Your task to perform on an android device: check google app version Image 0: 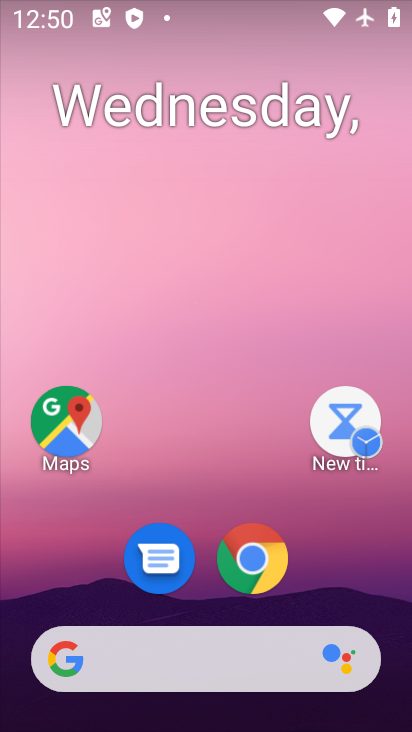
Step 0: drag from (285, 661) to (96, 110)
Your task to perform on an android device: check google app version Image 1: 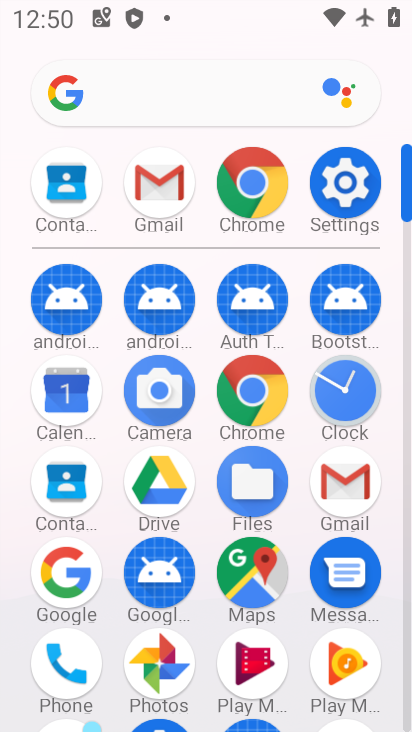
Step 1: drag from (396, 319) to (366, 180)
Your task to perform on an android device: check google app version Image 2: 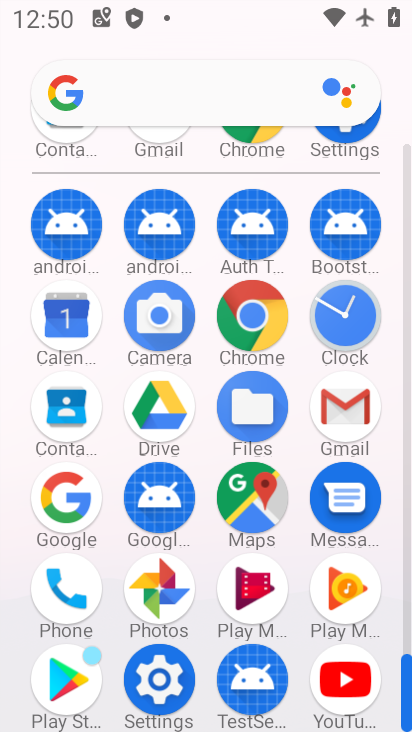
Step 2: click (58, 489)
Your task to perform on an android device: check google app version Image 3: 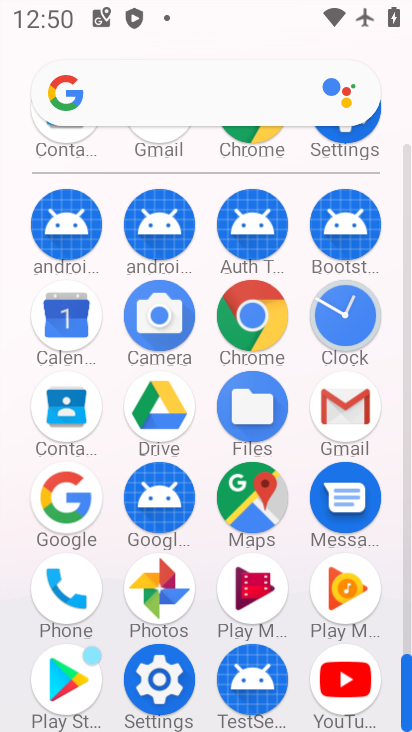
Step 3: click (56, 490)
Your task to perform on an android device: check google app version Image 4: 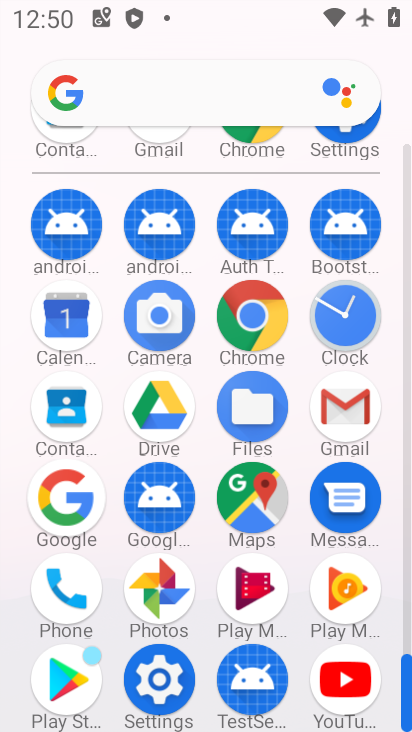
Step 4: click (52, 511)
Your task to perform on an android device: check google app version Image 5: 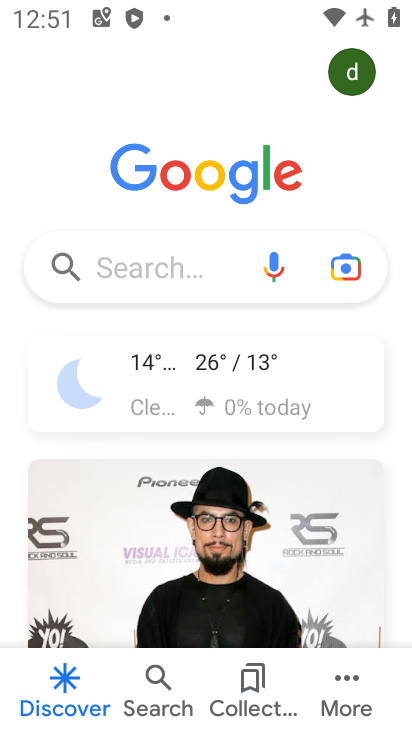
Step 5: click (345, 678)
Your task to perform on an android device: check google app version Image 6: 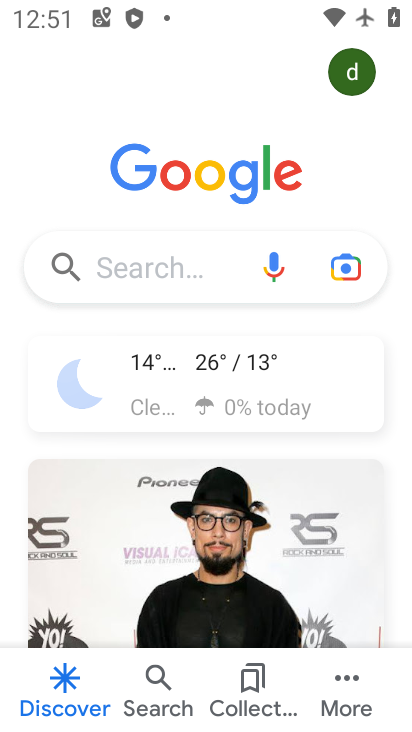
Step 6: click (345, 677)
Your task to perform on an android device: check google app version Image 7: 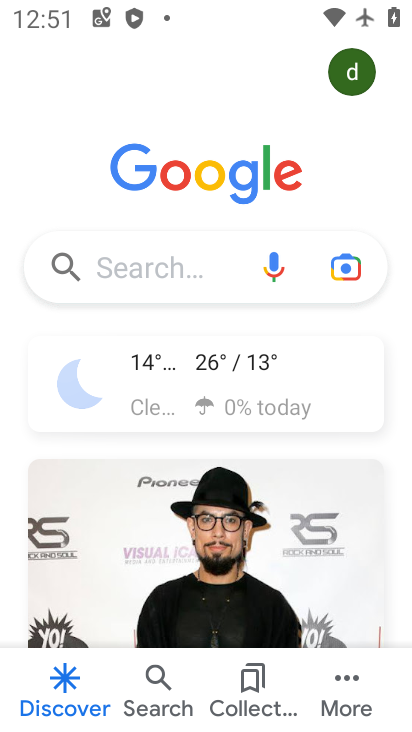
Step 7: click (351, 688)
Your task to perform on an android device: check google app version Image 8: 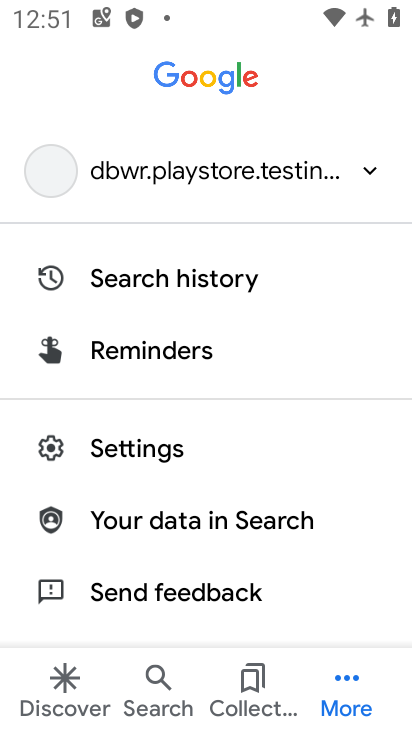
Step 8: click (350, 695)
Your task to perform on an android device: check google app version Image 9: 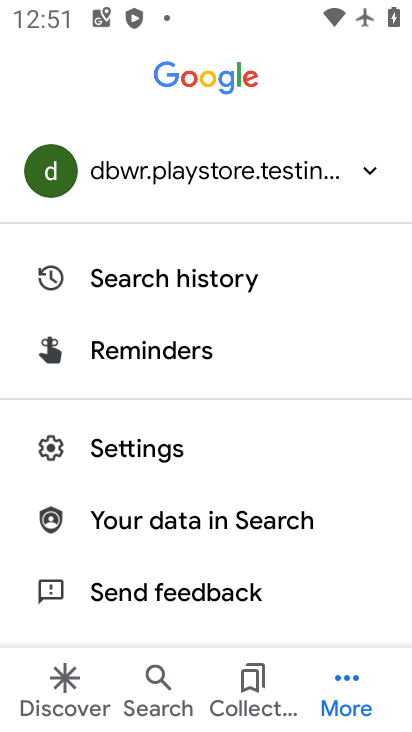
Step 9: click (352, 678)
Your task to perform on an android device: check google app version Image 10: 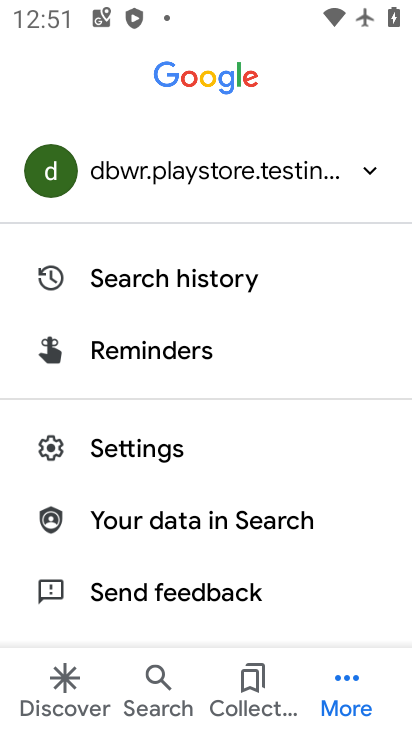
Step 10: click (351, 676)
Your task to perform on an android device: check google app version Image 11: 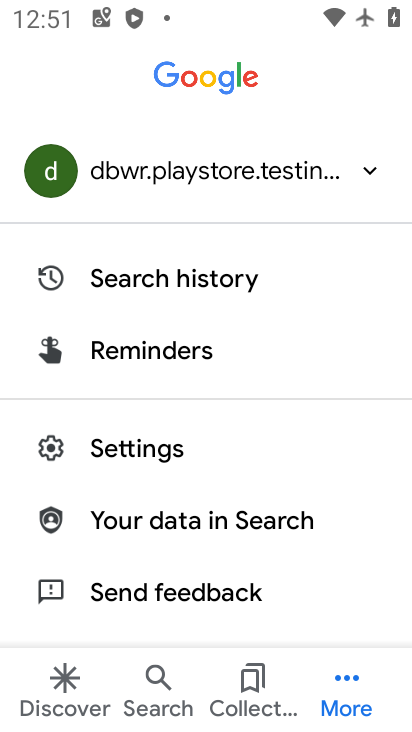
Step 11: click (351, 687)
Your task to perform on an android device: check google app version Image 12: 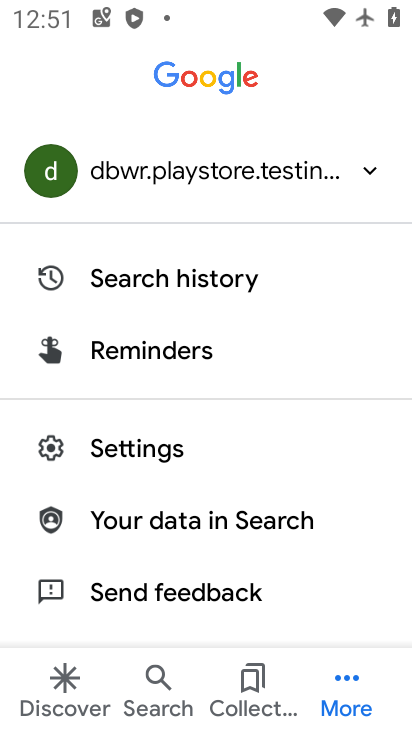
Step 12: click (123, 436)
Your task to perform on an android device: check google app version Image 13: 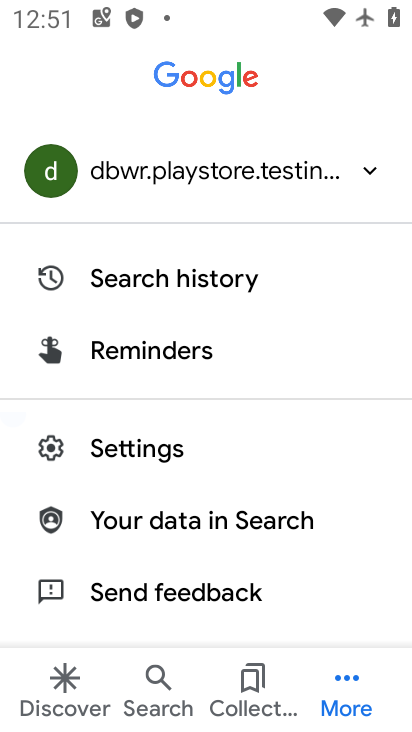
Step 13: click (126, 441)
Your task to perform on an android device: check google app version Image 14: 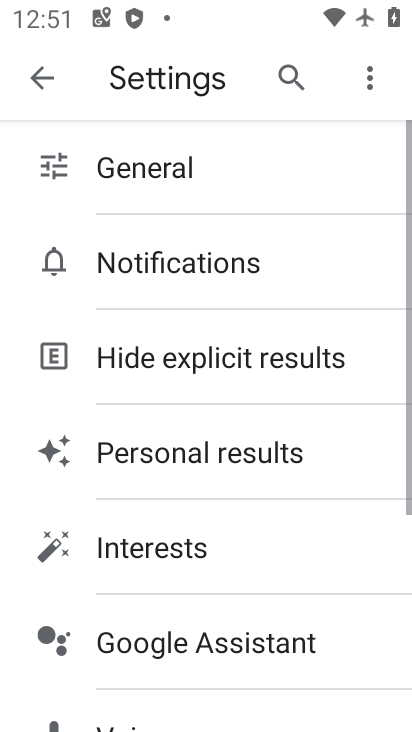
Step 14: click (155, 453)
Your task to perform on an android device: check google app version Image 15: 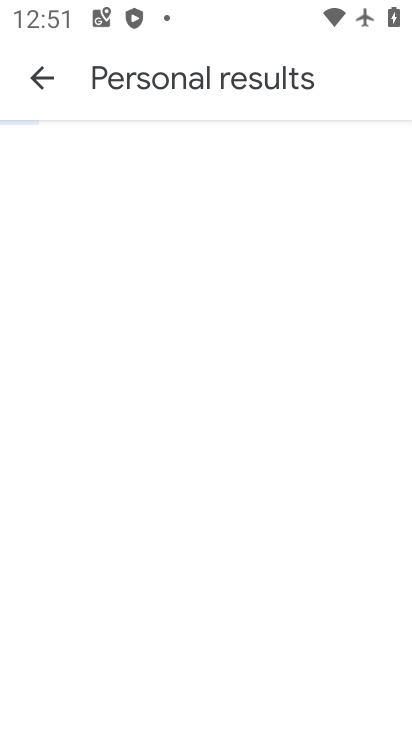
Step 15: click (34, 81)
Your task to perform on an android device: check google app version Image 16: 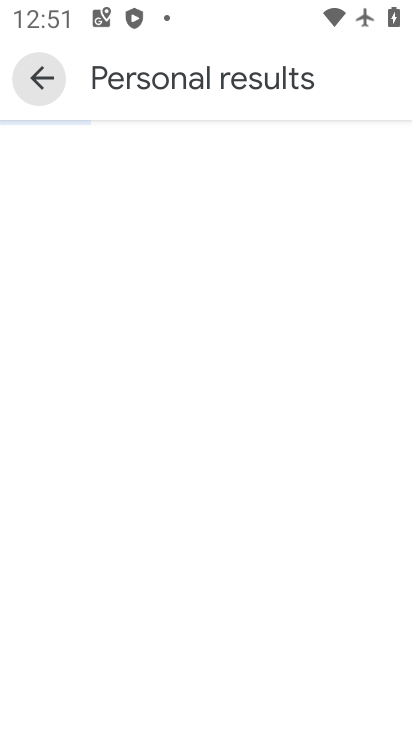
Step 16: click (32, 79)
Your task to perform on an android device: check google app version Image 17: 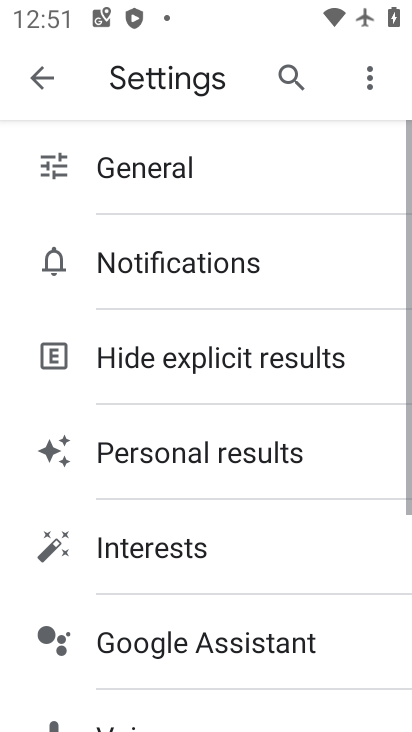
Step 17: drag from (187, 410) to (151, 71)
Your task to perform on an android device: check google app version Image 18: 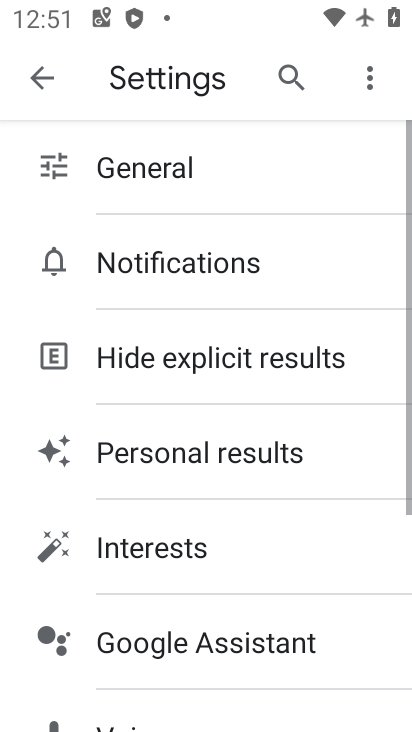
Step 18: drag from (223, 417) to (179, 42)
Your task to perform on an android device: check google app version Image 19: 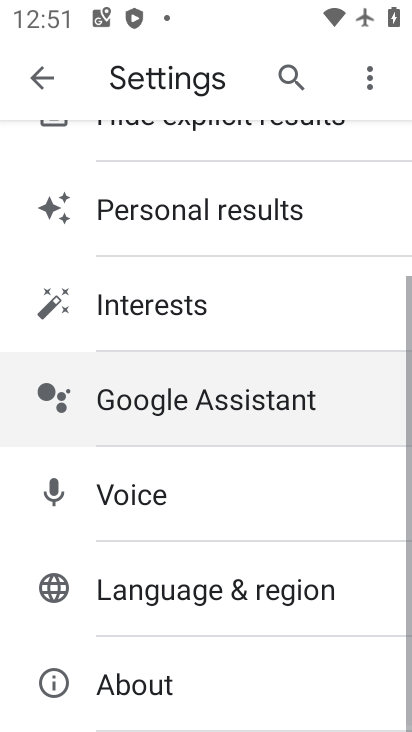
Step 19: drag from (235, 491) to (178, 15)
Your task to perform on an android device: check google app version Image 20: 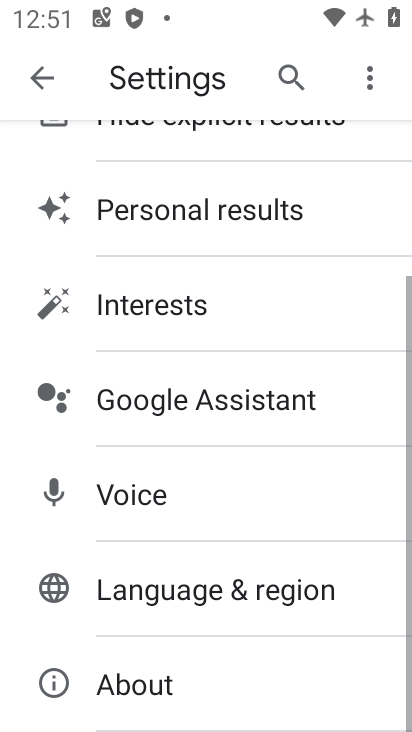
Step 20: click (130, 688)
Your task to perform on an android device: check google app version Image 21: 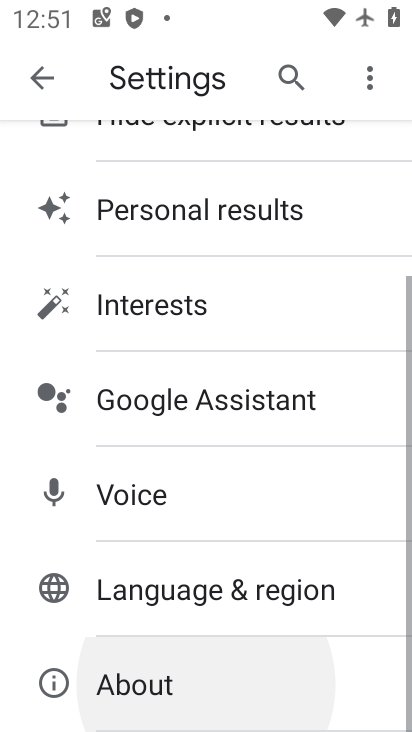
Step 21: click (131, 687)
Your task to perform on an android device: check google app version Image 22: 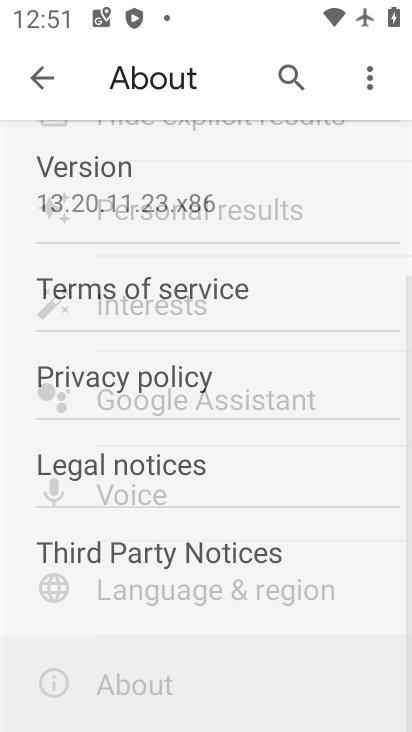
Step 22: click (134, 688)
Your task to perform on an android device: check google app version Image 23: 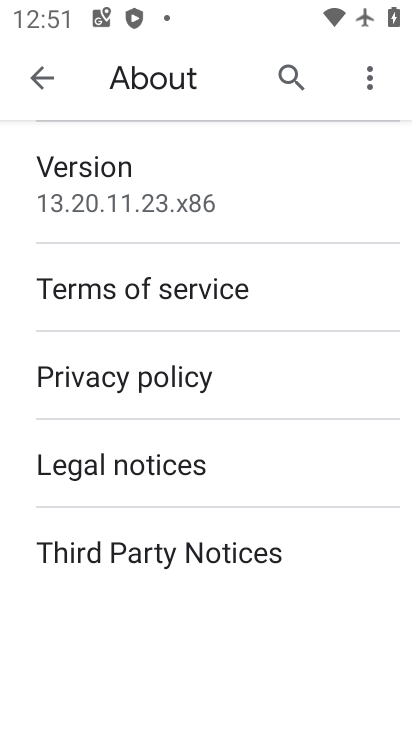
Step 23: click (134, 688)
Your task to perform on an android device: check google app version Image 24: 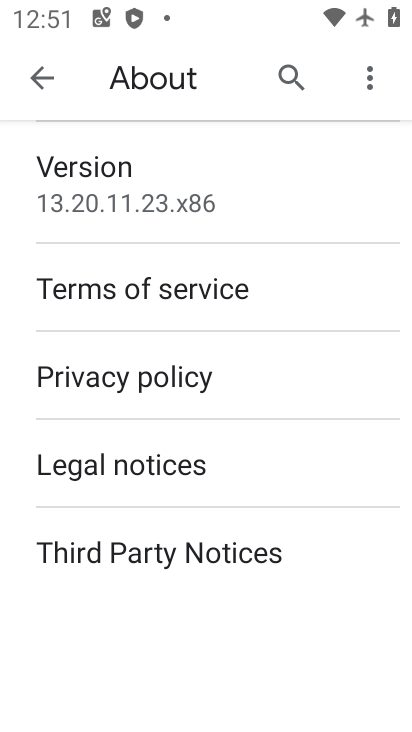
Step 24: click (134, 688)
Your task to perform on an android device: check google app version Image 25: 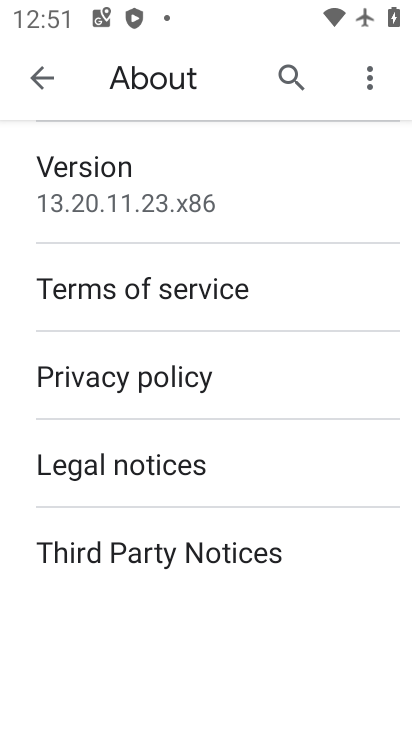
Step 25: task complete